Your task to perform on an android device: change the clock display to digital Image 0: 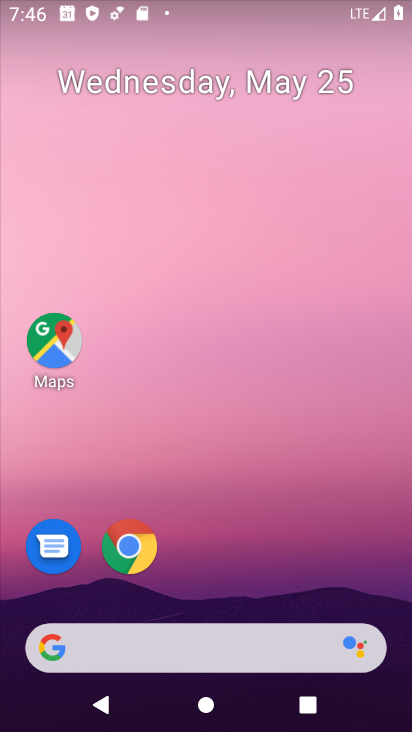
Step 0: drag from (344, 510) to (349, 196)
Your task to perform on an android device: change the clock display to digital Image 1: 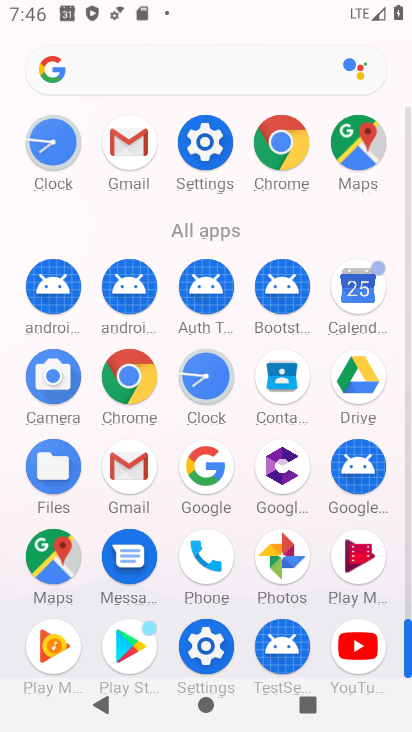
Step 1: click (206, 368)
Your task to perform on an android device: change the clock display to digital Image 2: 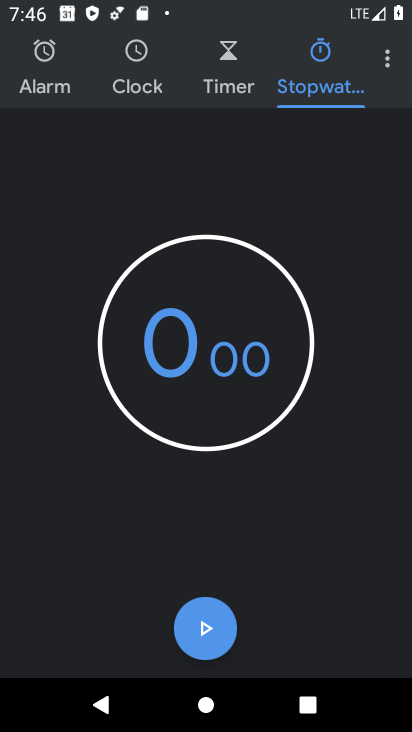
Step 2: click (389, 71)
Your task to perform on an android device: change the clock display to digital Image 3: 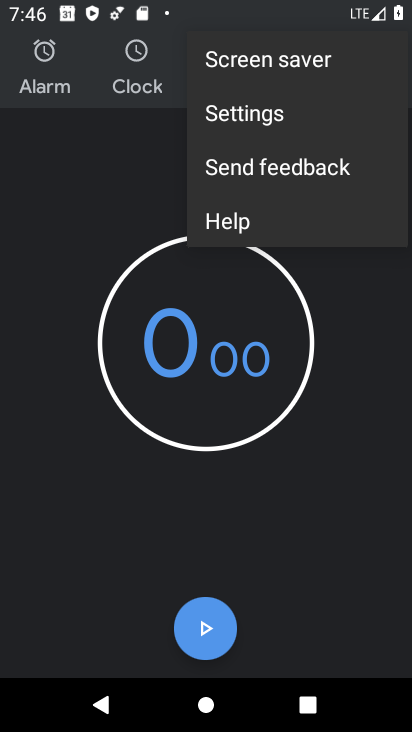
Step 3: click (301, 127)
Your task to perform on an android device: change the clock display to digital Image 4: 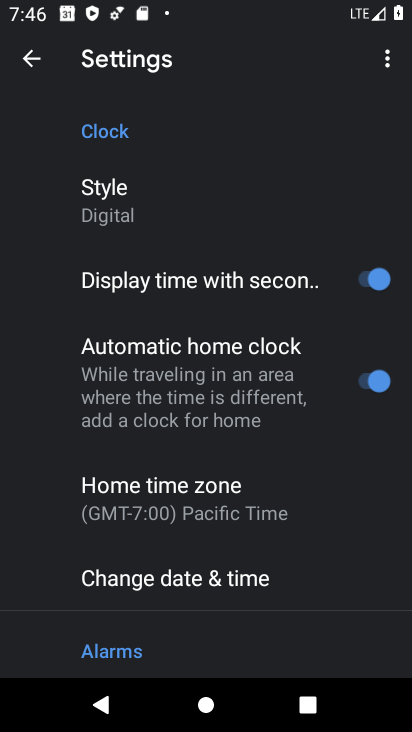
Step 4: task complete